Your task to perform on an android device: What is the news today? Image 0: 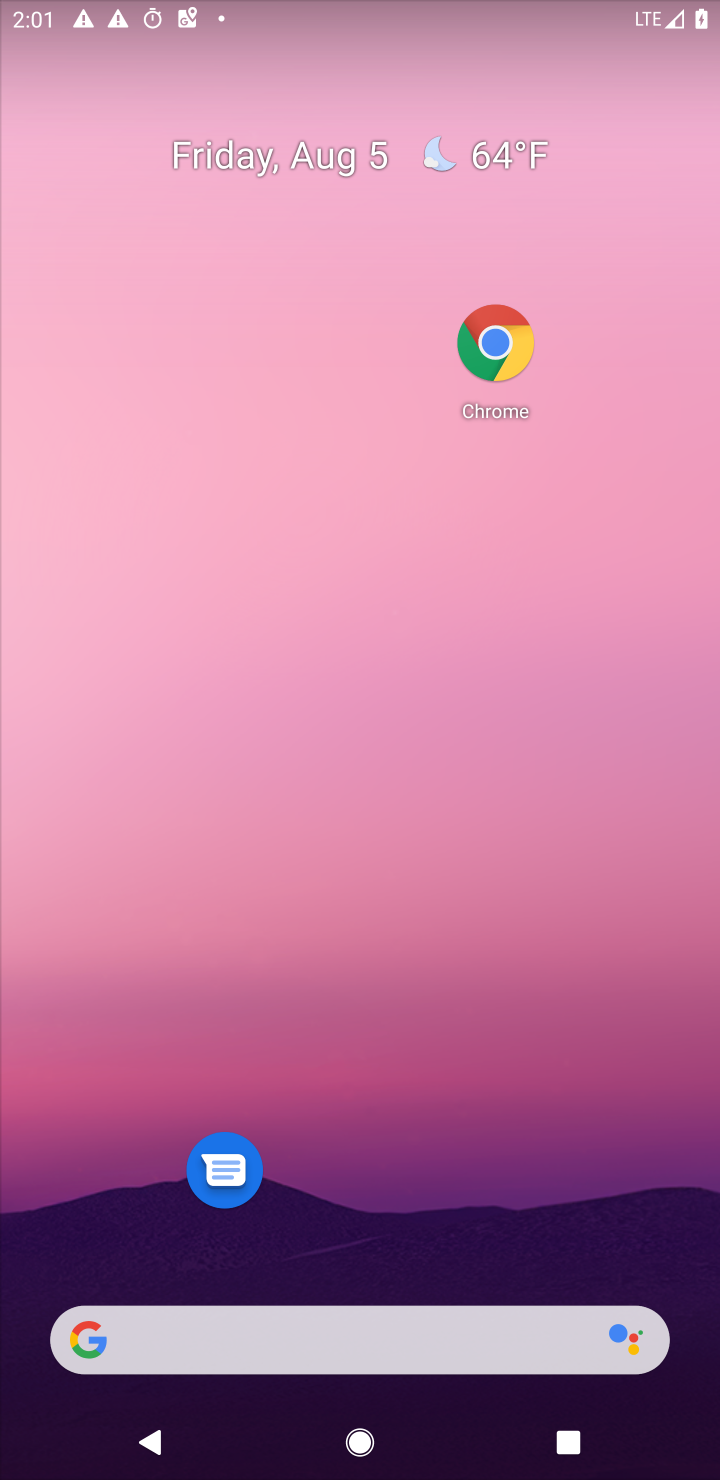
Step 0: drag from (337, 238) to (306, 94)
Your task to perform on an android device: What is the news today? Image 1: 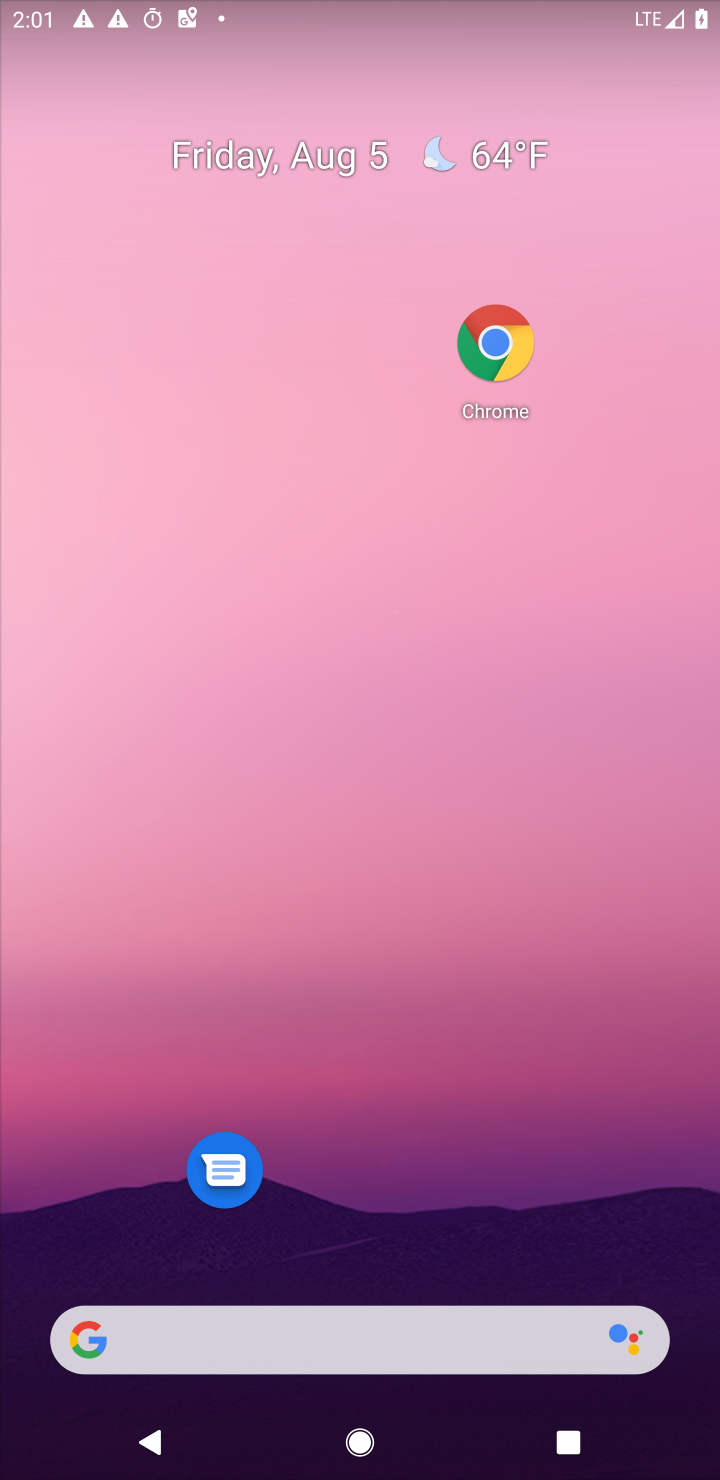
Step 1: drag from (335, 812) to (303, 6)
Your task to perform on an android device: What is the news today? Image 2: 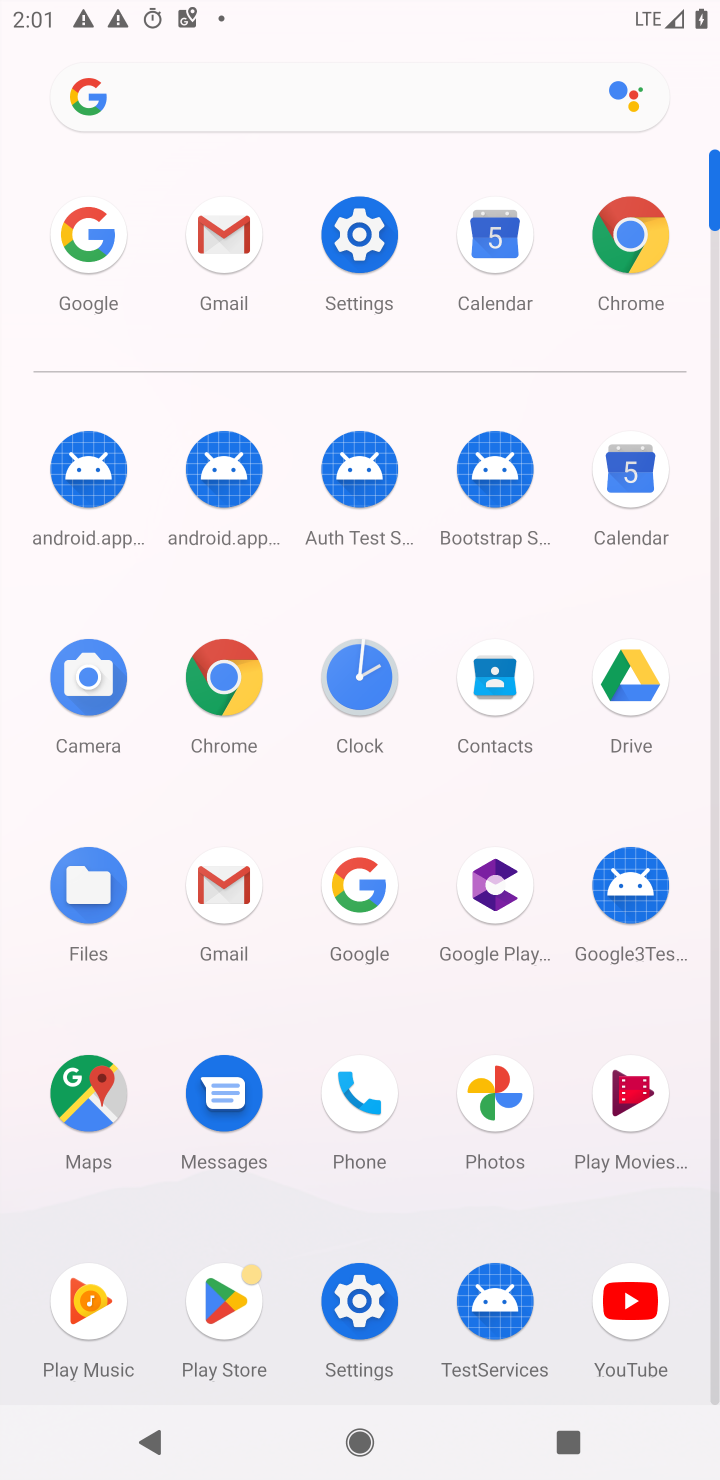
Step 2: click (370, 898)
Your task to perform on an android device: What is the news today? Image 3: 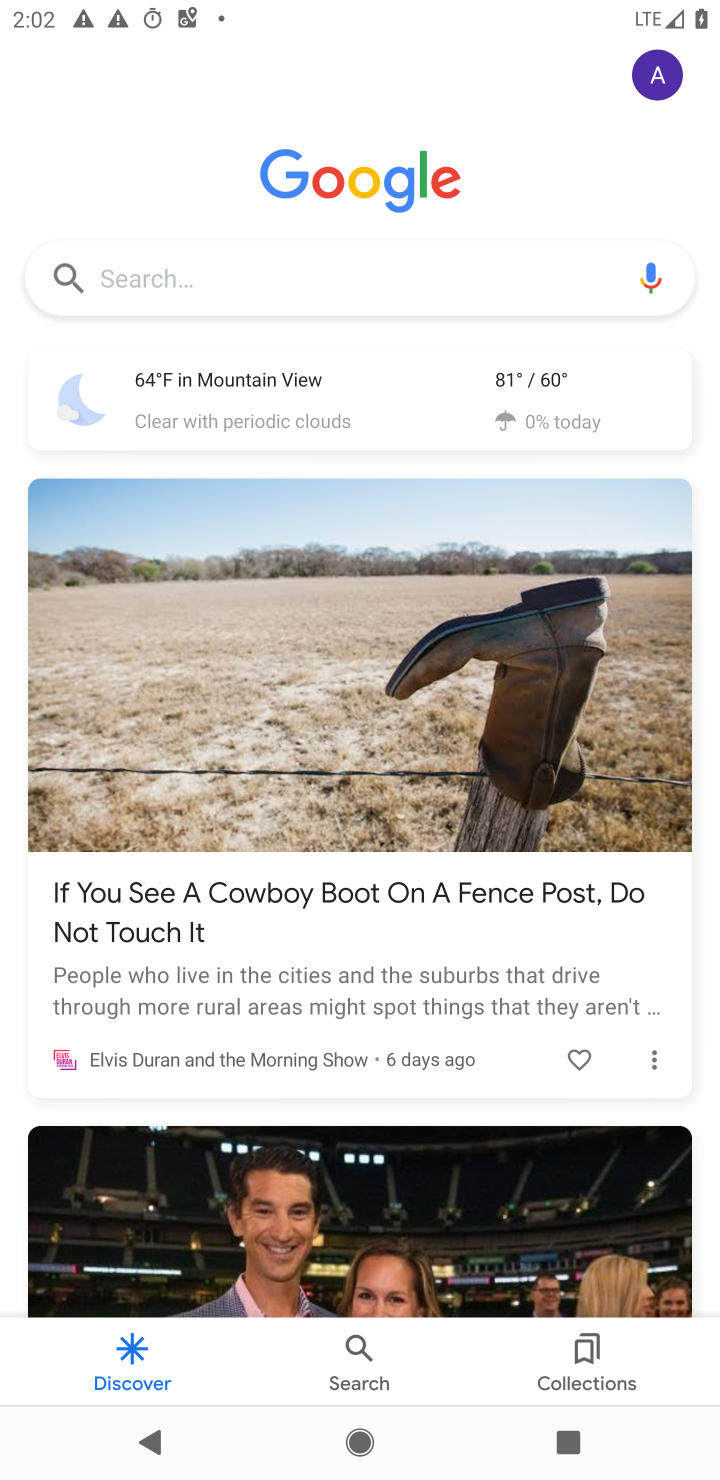
Step 3: task complete